Your task to perform on an android device: Open eBay Image 0: 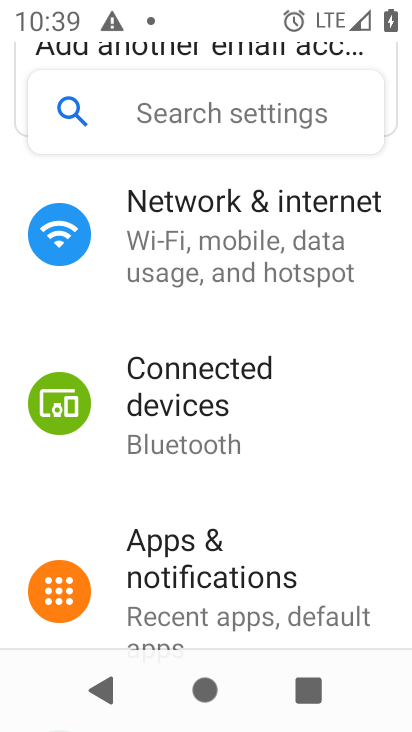
Step 0: press home button
Your task to perform on an android device: Open eBay Image 1: 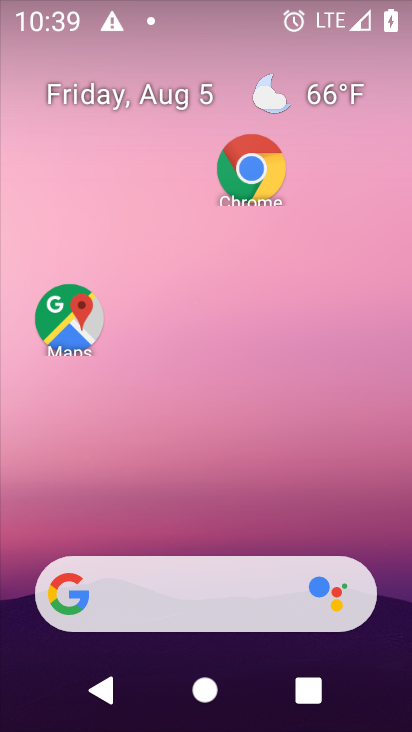
Step 1: click (229, 190)
Your task to perform on an android device: Open eBay Image 2: 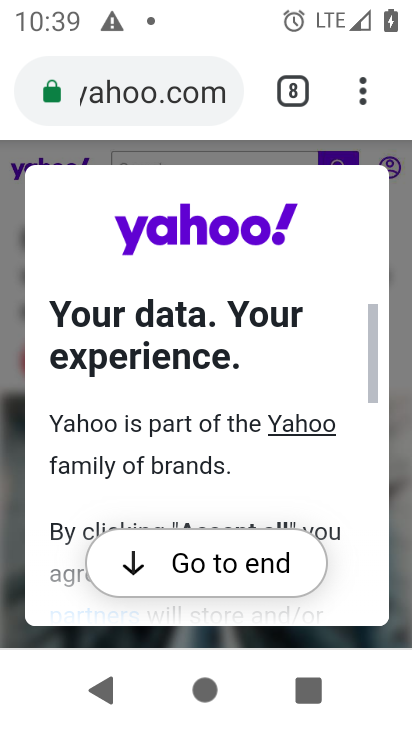
Step 2: click (283, 99)
Your task to perform on an android device: Open eBay Image 3: 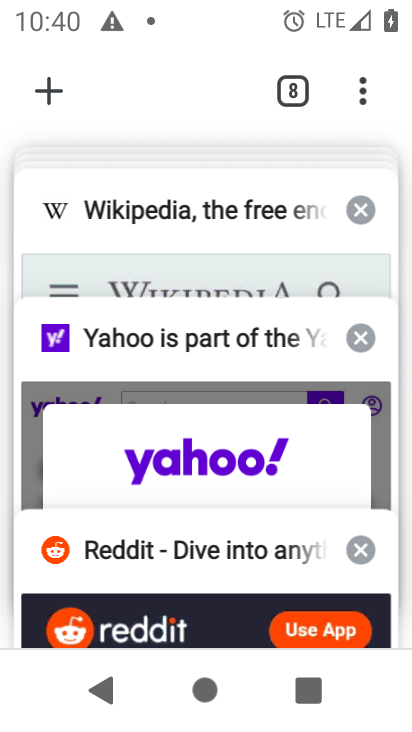
Step 3: click (53, 88)
Your task to perform on an android device: Open eBay Image 4: 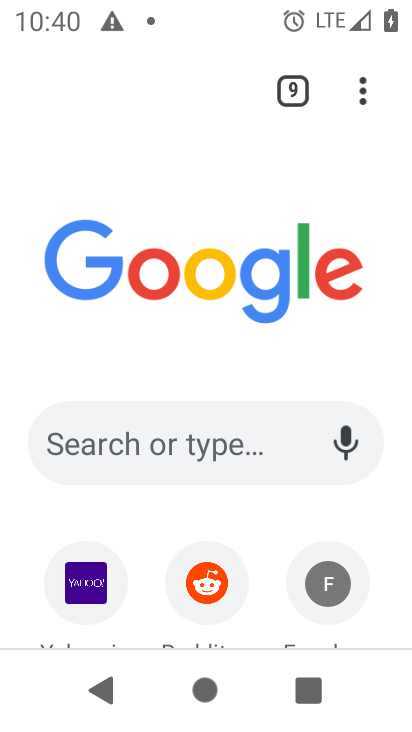
Step 4: click (136, 444)
Your task to perform on an android device: Open eBay Image 5: 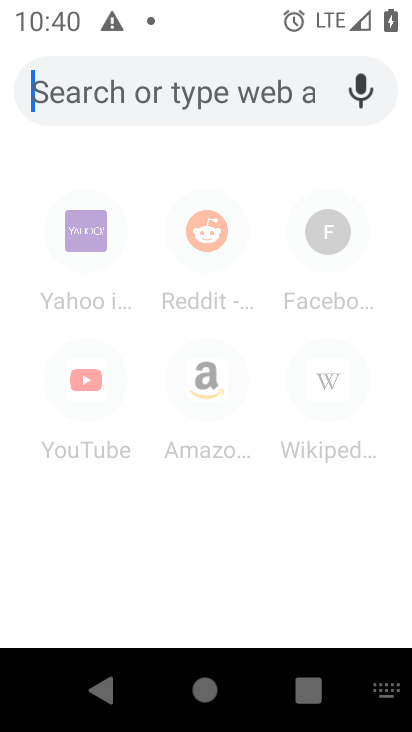
Step 5: type "eBay"
Your task to perform on an android device: Open eBay Image 6: 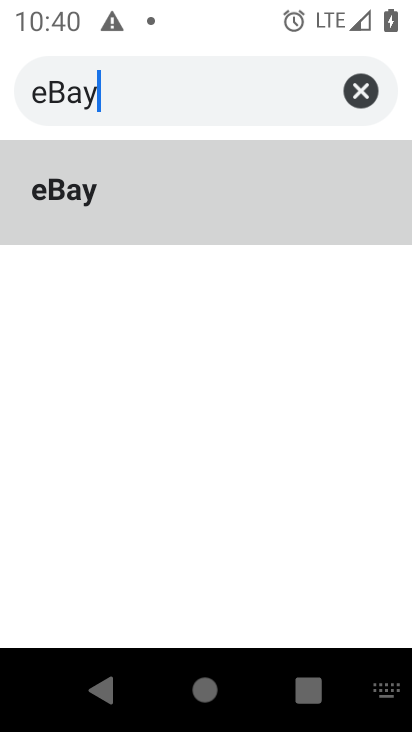
Step 6: type ""
Your task to perform on an android device: Open eBay Image 7: 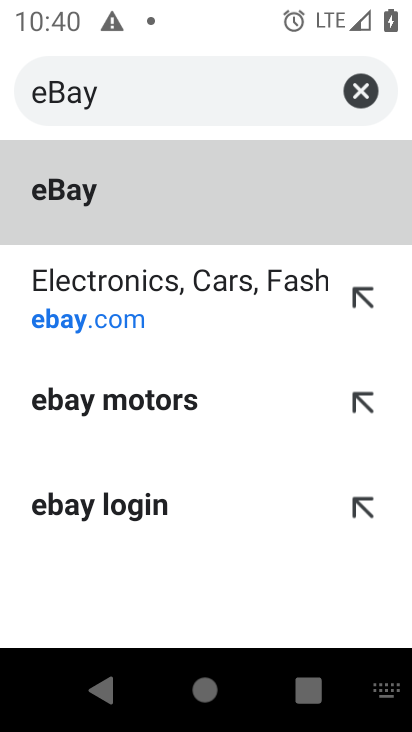
Step 7: click (122, 218)
Your task to perform on an android device: Open eBay Image 8: 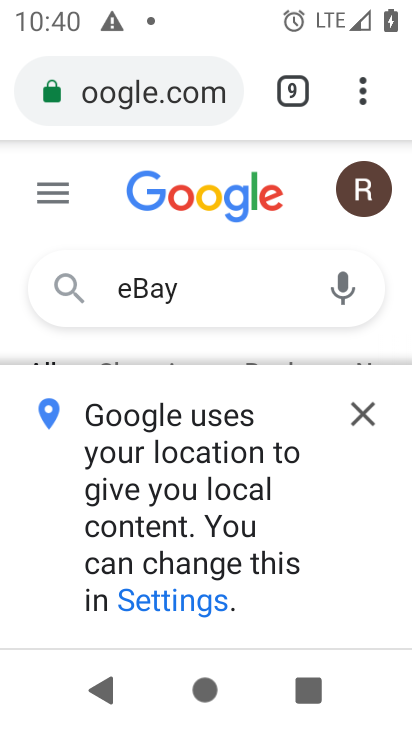
Step 8: click (367, 402)
Your task to perform on an android device: Open eBay Image 9: 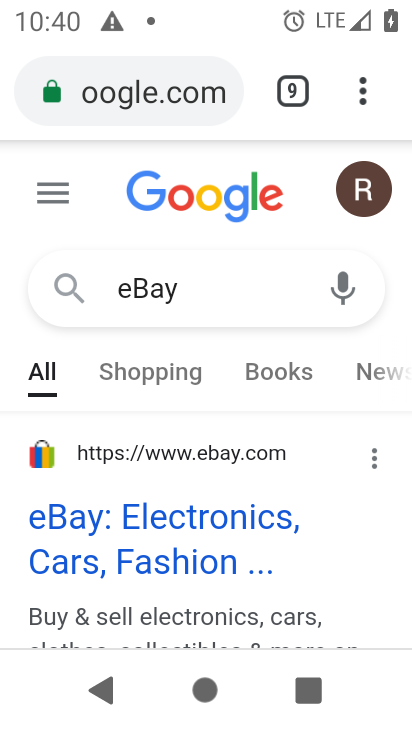
Step 9: click (153, 511)
Your task to perform on an android device: Open eBay Image 10: 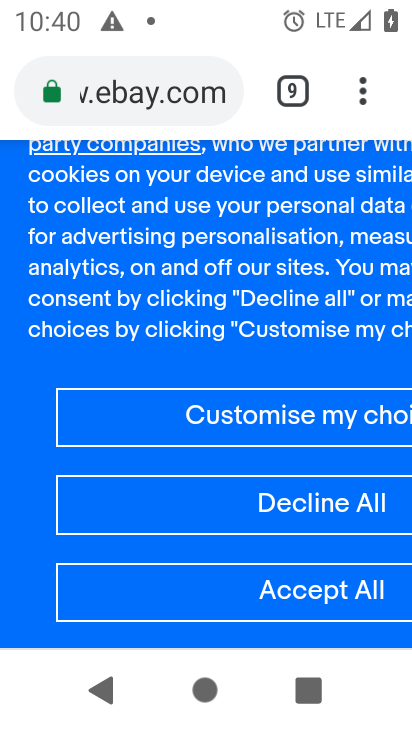
Step 10: task complete